Your task to perform on an android device: Open Google Chrome and open the bookmarks view Image 0: 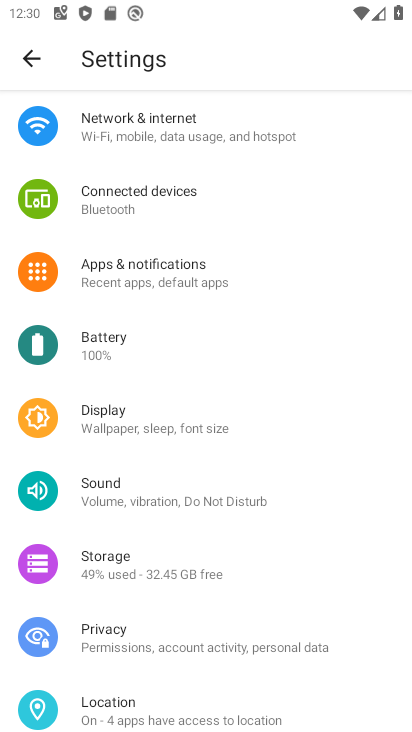
Step 0: press home button
Your task to perform on an android device: Open Google Chrome and open the bookmarks view Image 1: 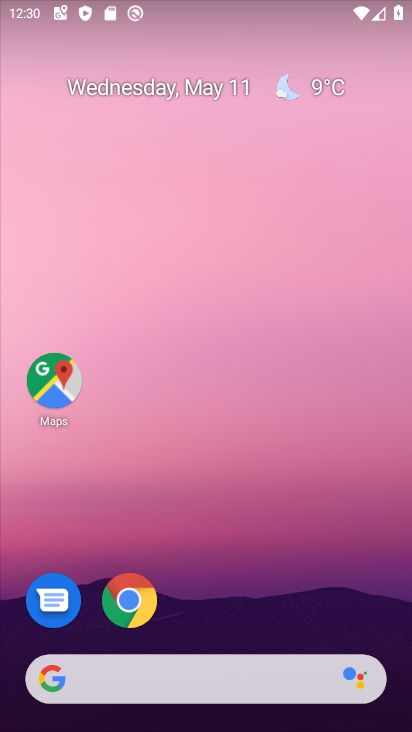
Step 1: click (131, 605)
Your task to perform on an android device: Open Google Chrome and open the bookmarks view Image 2: 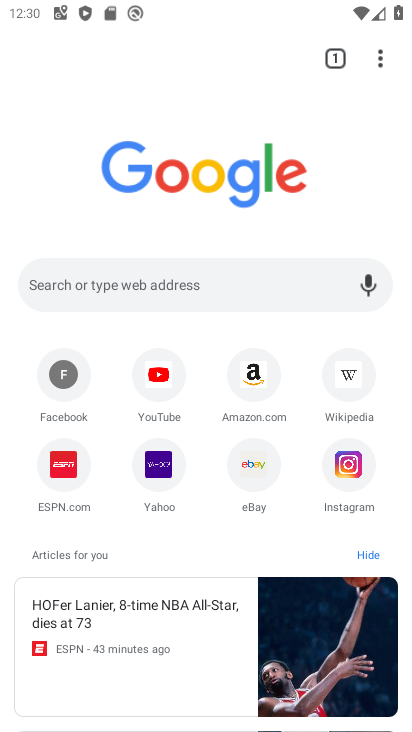
Step 2: click (381, 60)
Your task to perform on an android device: Open Google Chrome and open the bookmarks view Image 3: 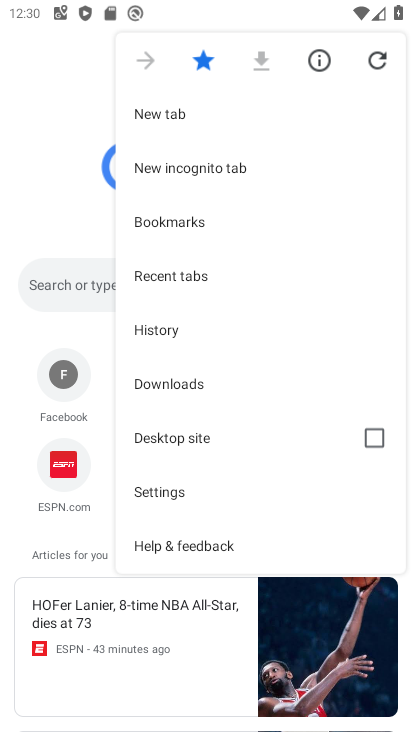
Step 3: click (191, 217)
Your task to perform on an android device: Open Google Chrome and open the bookmarks view Image 4: 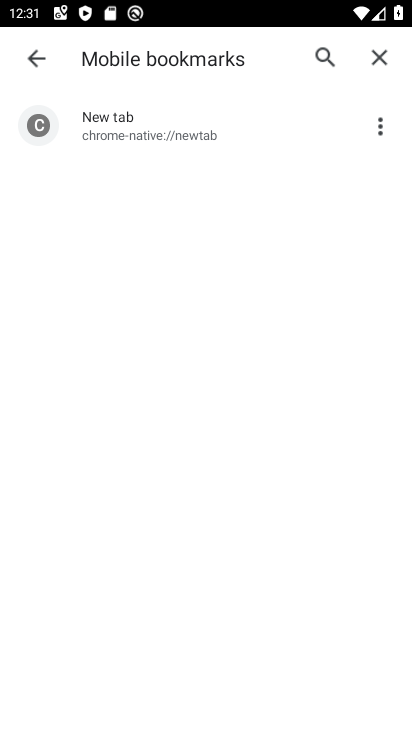
Step 4: task complete